Your task to perform on an android device: Open CNN.com Image 0: 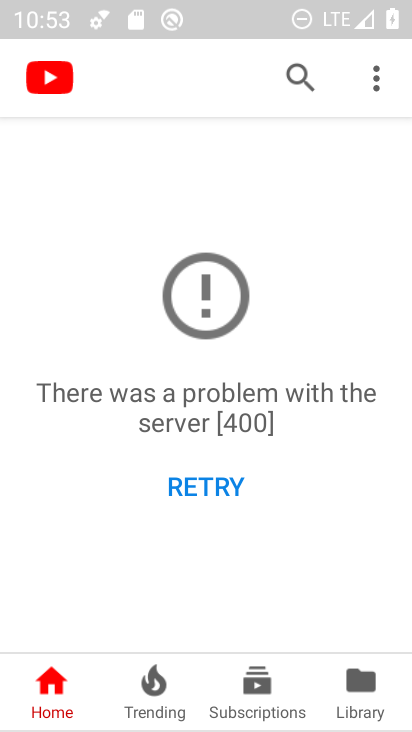
Step 0: press back button
Your task to perform on an android device: Open CNN.com Image 1: 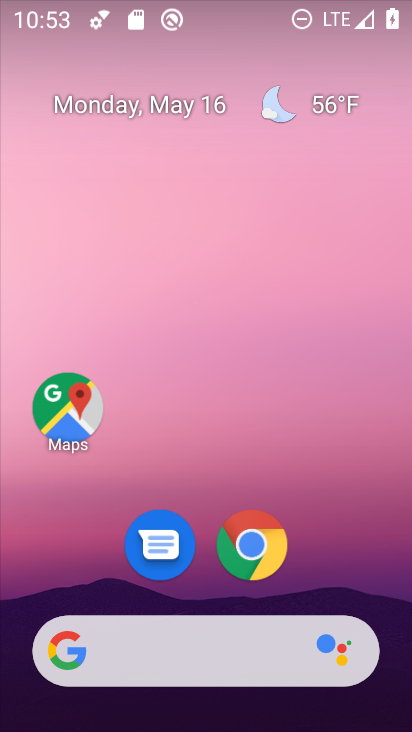
Step 1: click (254, 545)
Your task to perform on an android device: Open CNN.com Image 2: 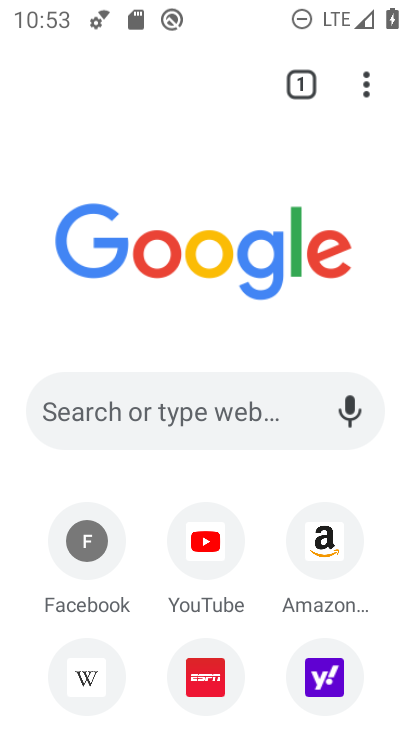
Step 2: click (198, 423)
Your task to perform on an android device: Open CNN.com Image 3: 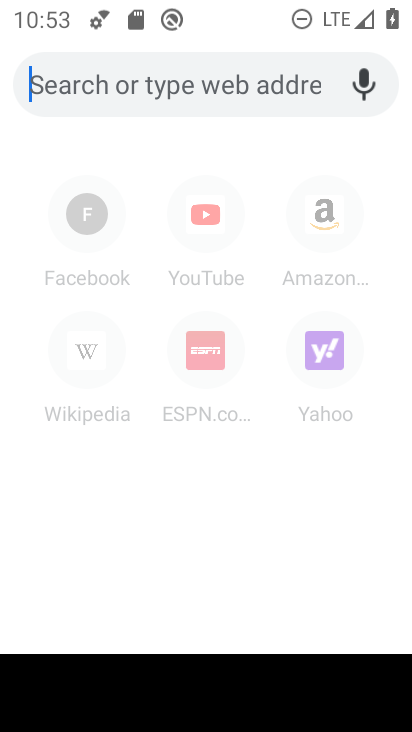
Step 3: type "CNN.com"
Your task to perform on an android device: Open CNN.com Image 4: 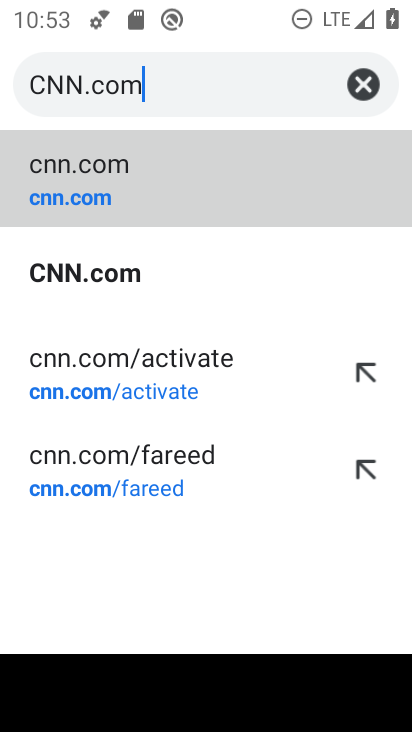
Step 4: click (98, 284)
Your task to perform on an android device: Open CNN.com Image 5: 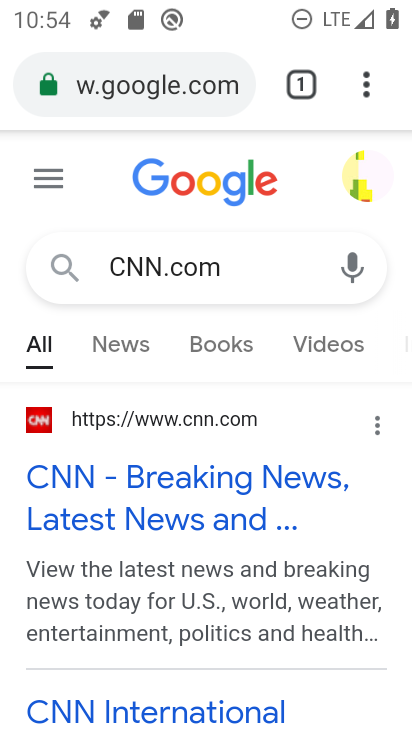
Step 5: click (127, 477)
Your task to perform on an android device: Open CNN.com Image 6: 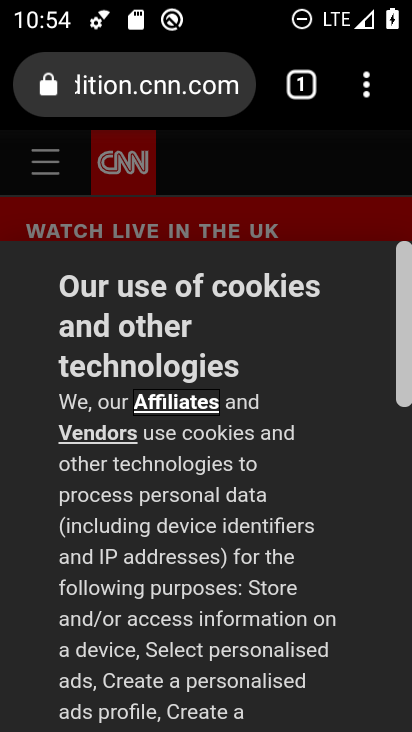
Step 6: task complete